Your task to perform on an android device: Clear the shopping cart on costco.com. Add "energizer triple a" to the cart on costco.com Image 0: 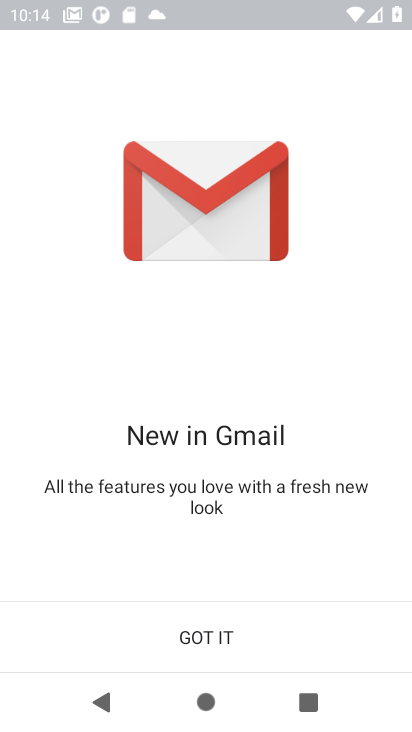
Step 0: click (267, 626)
Your task to perform on an android device: Clear the shopping cart on costco.com. Add "energizer triple a" to the cart on costco.com Image 1: 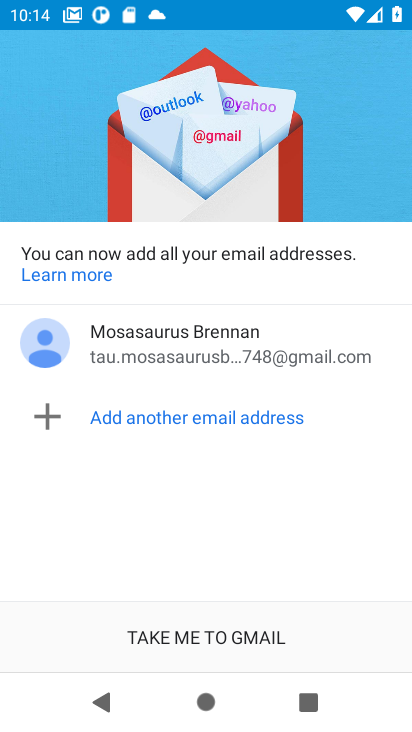
Step 1: press home button
Your task to perform on an android device: Clear the shopping cart on costco.com. Add "energizer triple a" to the cart on costco.com Image 2: 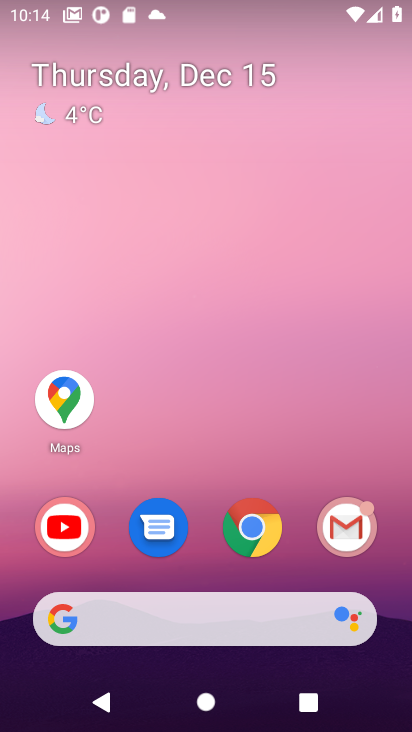
Step 2: click (257, 538)
Your task to perform on an android device: Clear the shopping cart on costco.com. Add "energizer triple a" to the cart on costco.com Image 3: 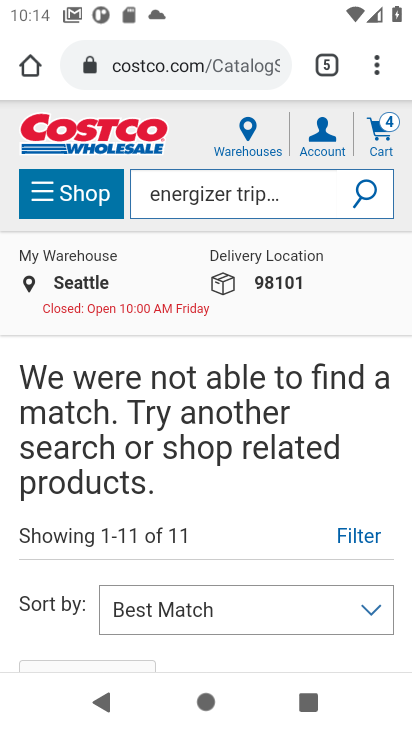
Step 3: task complete